Your task to perform on an android device: Go to accessibility settings Image 0: 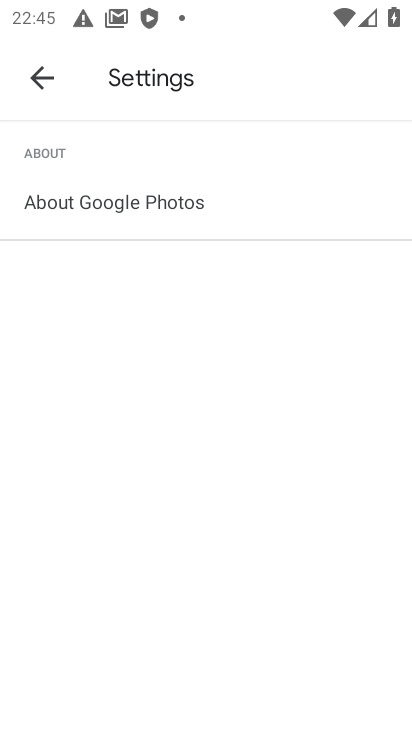
Step 0: click (38, 76)
Your task to perform on an android device: Go to accessibility settings Image 1: 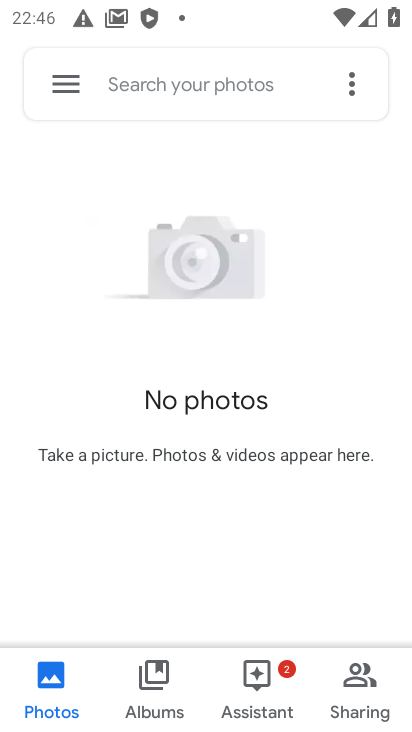
Step 1: press back button
Your task to perform on an android device: Go to accessibility settings Image 2: 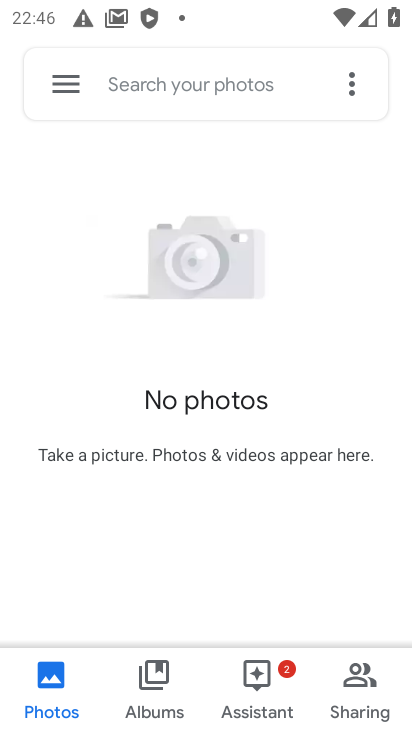
Step 2: press back button
Your task to perform on an android device: Go to accessibility settings Image 3: 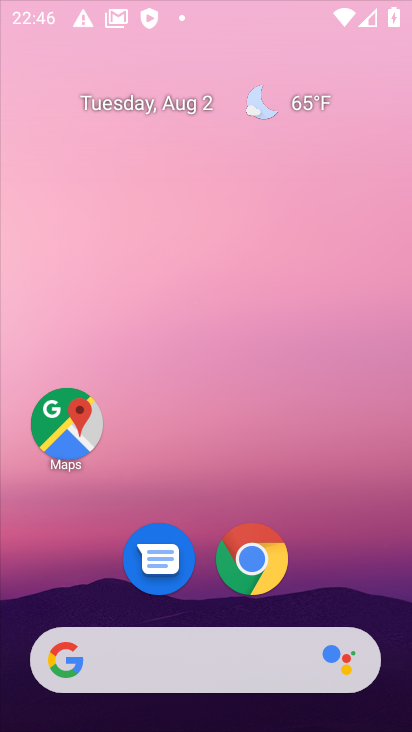
Step 3: press back button
Your task to perform on an android device: Go to accessibility settings Image 4: 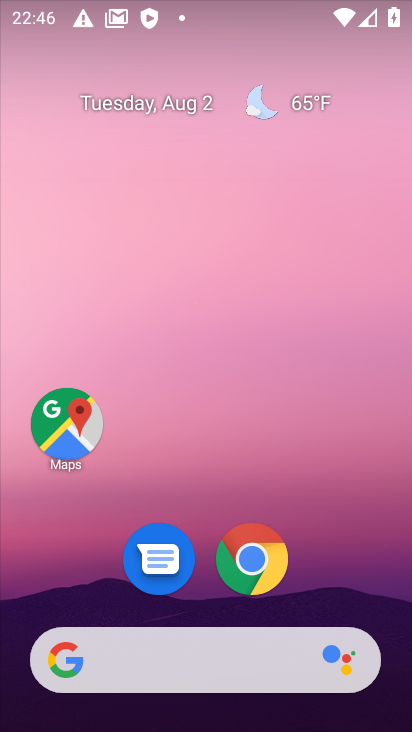
Step 4: press back button
Your task to perform on an android device: Go to accessibility settings Image 5: 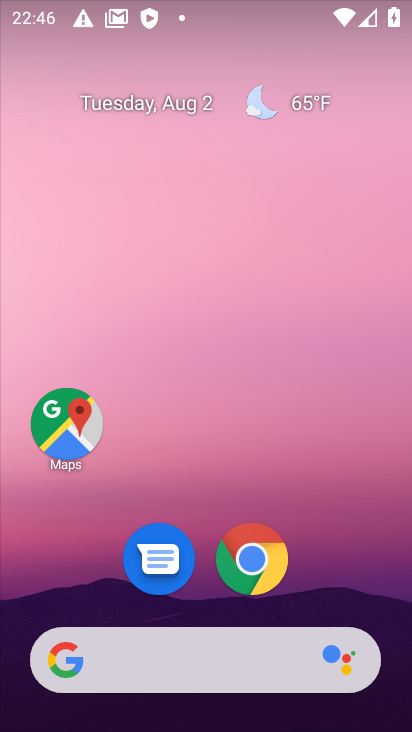
Step 5: drag from (219, 592) to (142, 132)
Your task to perform on an android device: Go to accessibility settings Image 6: 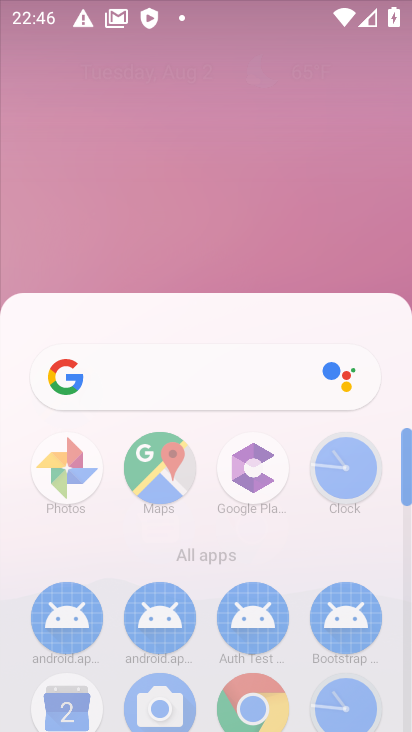
Step 6: drag from (213, 484) to (159, 178)
Your task to perform on an android device: Go to accessibility settings Image 7: 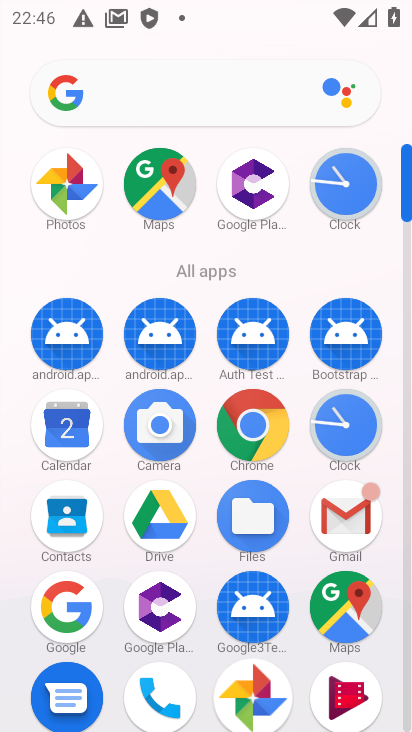
Step 7: drag from (219, 582) to (222, 207)
Your task to perform on an android device: Go to accessibility settings Image 8: 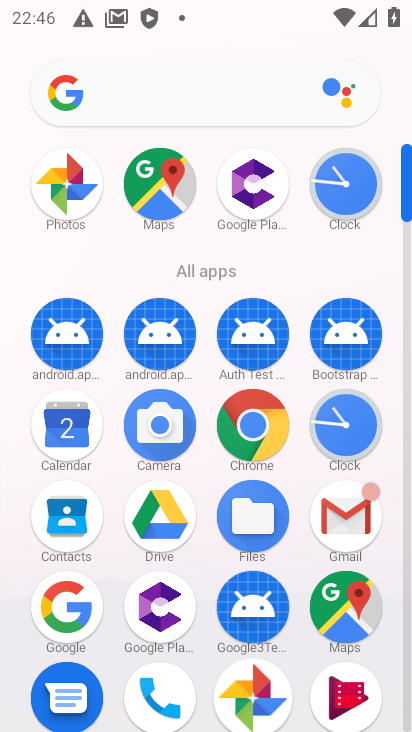
Step 8: drag from (228, 568) to (222, 266)
Your task to perform on an android device: Go to accessibility settings Image 9: 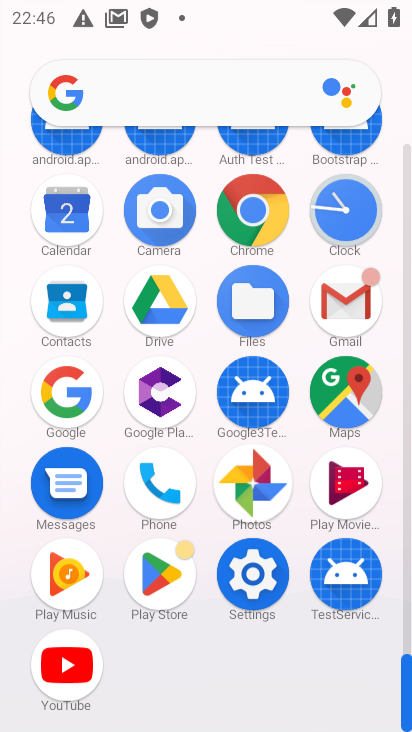
Step 9: drag from (220, 466) to (197, 261)
Your task to perform on an android device: Go to accessibility settings Image 10: 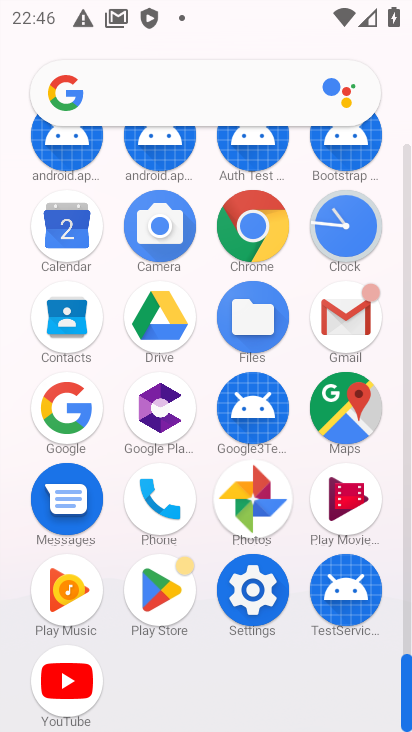
Step 10: click (254, 601)
Your task to perform on an android device: Go to accessibility settings Image 11: 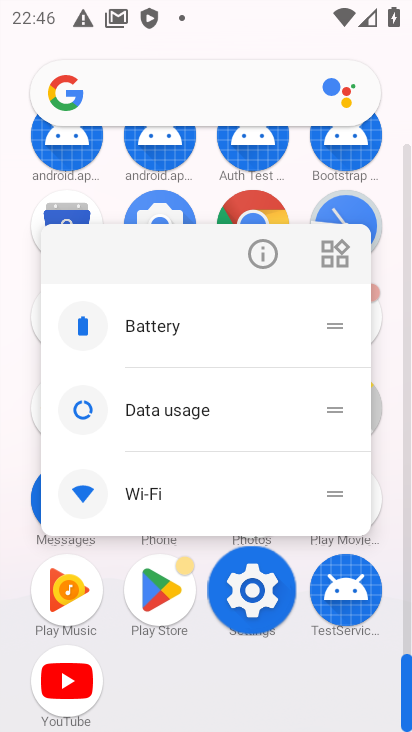
Step 11: click (254, 601)
Your task to perform on an android device: Go to accessibility settings Image 12: 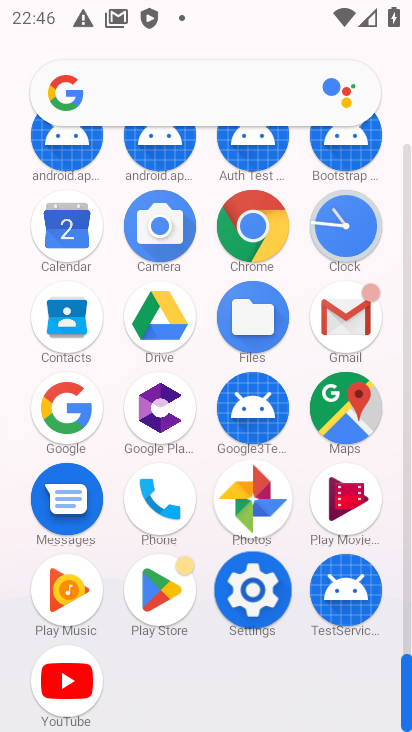
Step 12: click (254, 601)
Your task to perform on an android device: Go to accessibility settings Image 13: 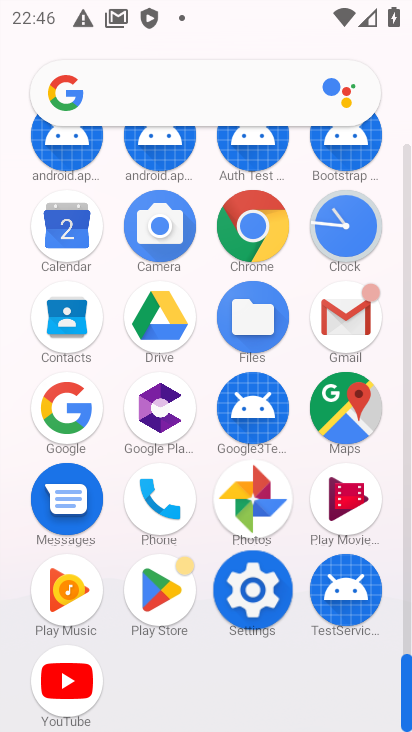
Step 13: click (254, 601)
Your task to perform on an android device: Go to accessibility settings Image 14: 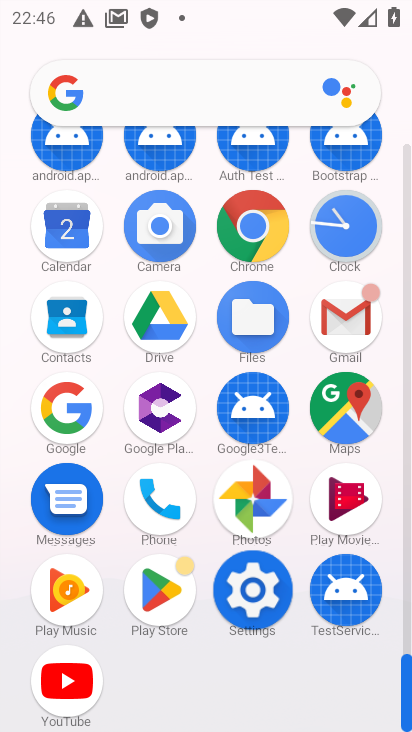
Step 14: click (256, 601)
Your task to perform on an android device: Go to accessibility settings Image 15: 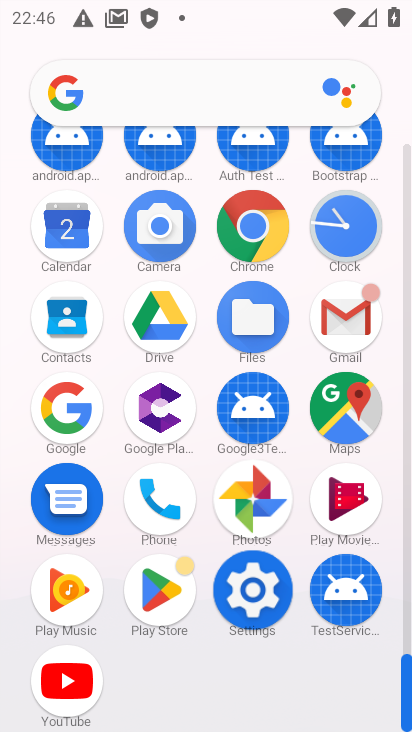
Step 15: click (256, 601)
Your task to perform on an android device: Go to accessibility settings Image 16: 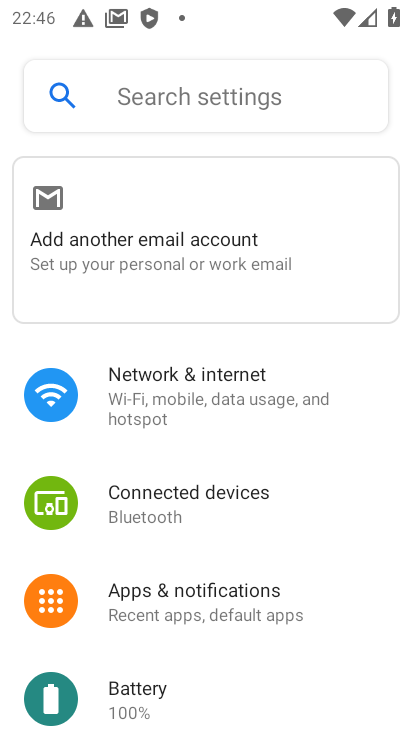
Step 16: drag from (205, 583) to (168, 248)
Your task to perform on an android device: Go to accessibility settings Image 17: 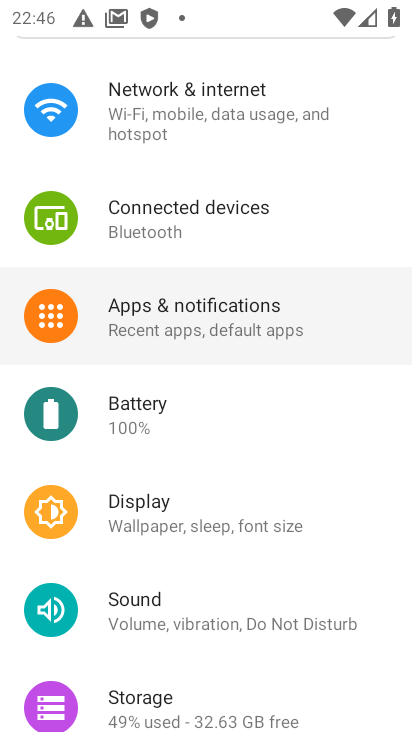
Step 17: drag from (170, 633) to (168, 365)
Your task to perform on an android device: Go to accessibility settings Image 18: 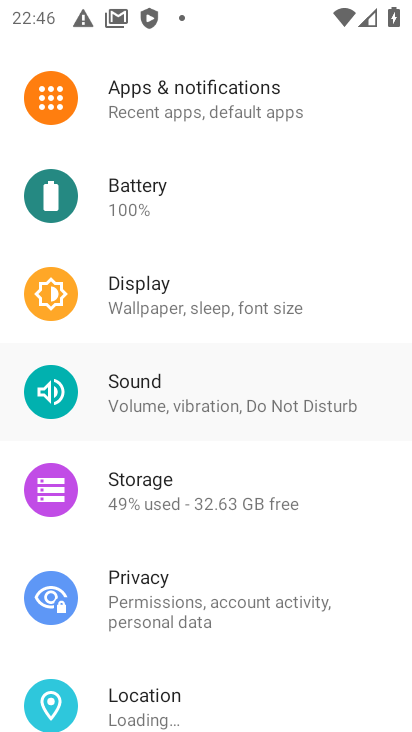
Step 18: drag from (199, 540) to (170, 276)
Your task to perform on an android device: Go to accessibility settings Image 19: 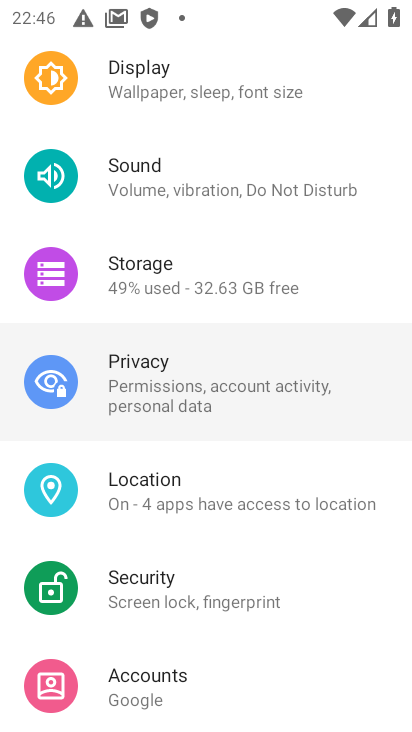
Step 19: drag from (218, 489) to (204, 231)
Your task to perform on an android device: Go to accessibility settings Image 20: 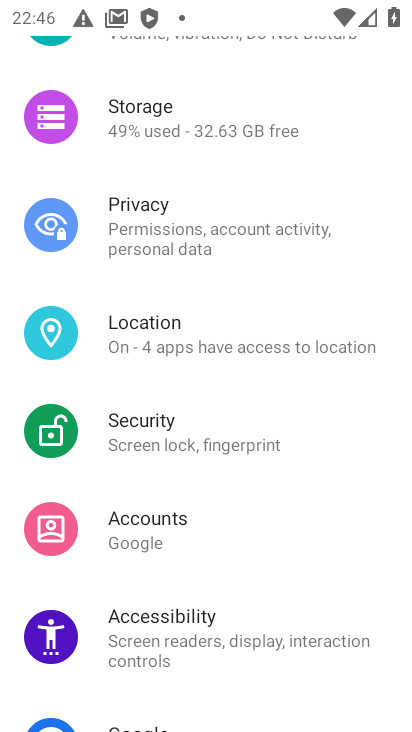
Step 20: drag from (235, 500) to (236, 319)
Your task to perform on an android device: Go to accessibility settings Image 21: 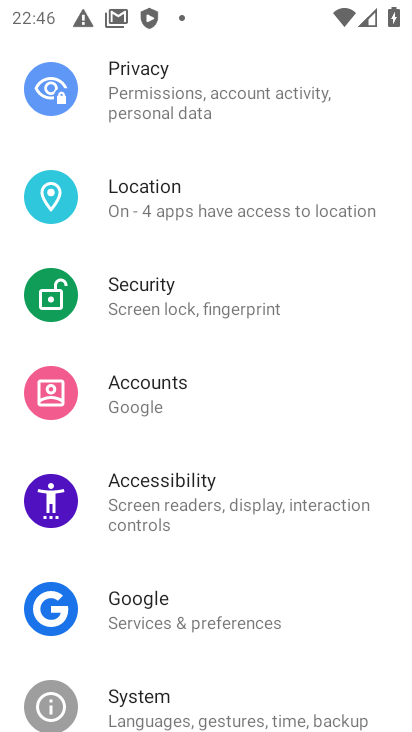
Step 21: click (136, 480)
Your task to perform on an android device: Go to accessibility settings Image 22: 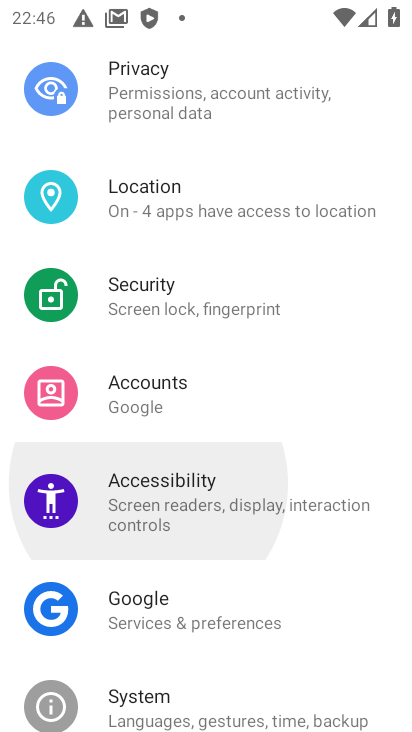
Step 22: click (136, 480)
Your task to perform on an android device: Go to accessibility settings Image 23: 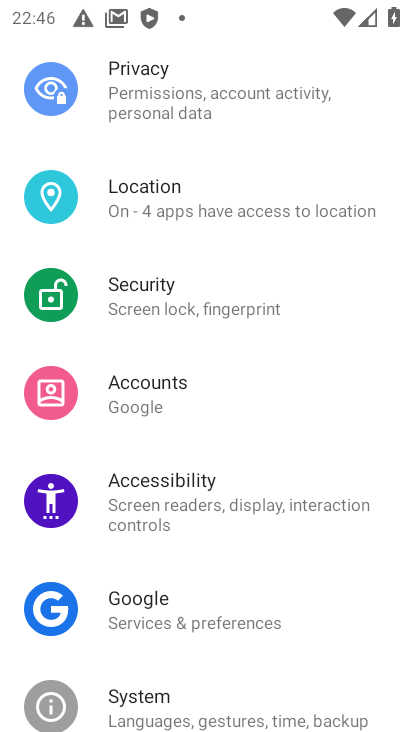
Step 23: click (135, 479)
Your task to perform on an android device: Go to accessibility settings Image 24: 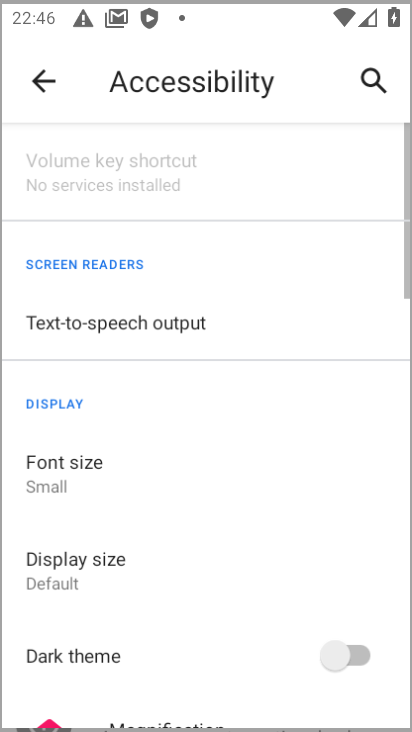
Step 24: click (135, 479)
Your task to perform on an android device: Go to accessibility settings Image 25: 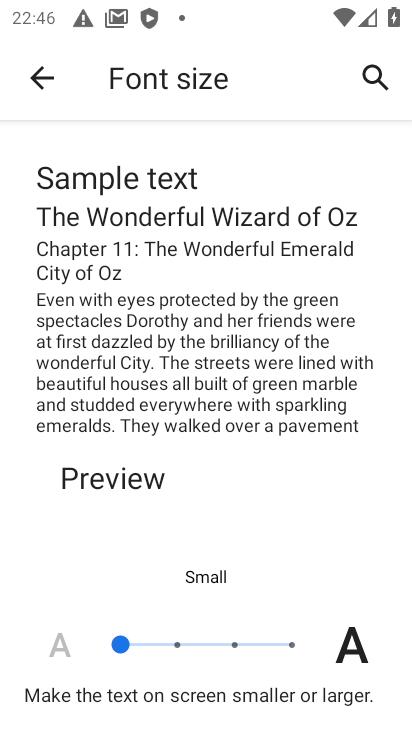
Step 25: click (39, 74)
Your task to perform on an android device: Go to accessibility settings Image 26: 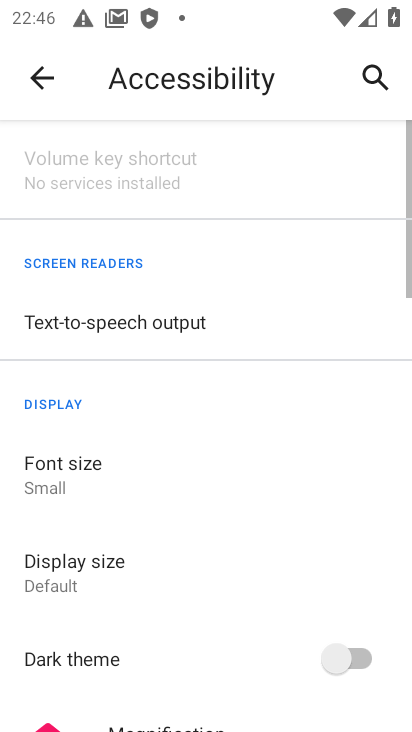
Step 26: task complete